Your task to perform on an android device: open sync settings in chrome Image 0: 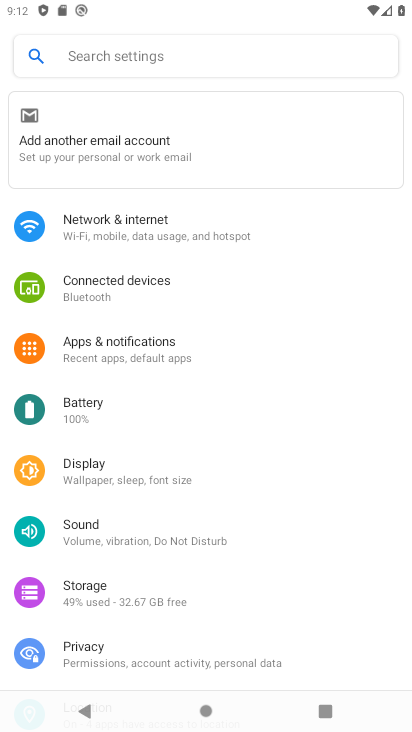
Step 0: press home button
Your task to perform on an android device: open sync settings in chrome Image 1: 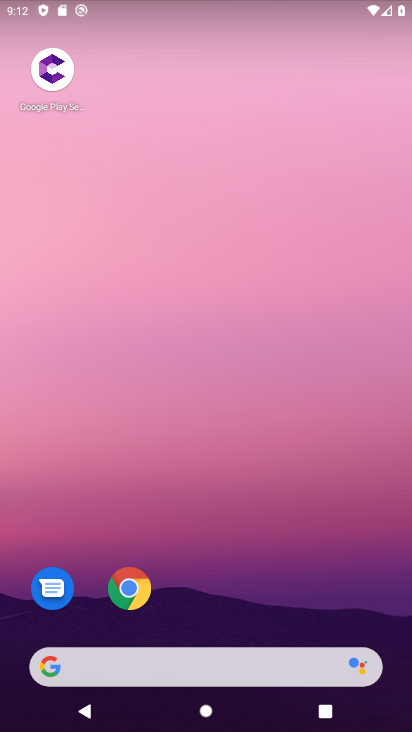
Step 1: drag from (214, 631) to (153, 72)
Your task to perform on an android device: open sync settings in chrome Image 2: 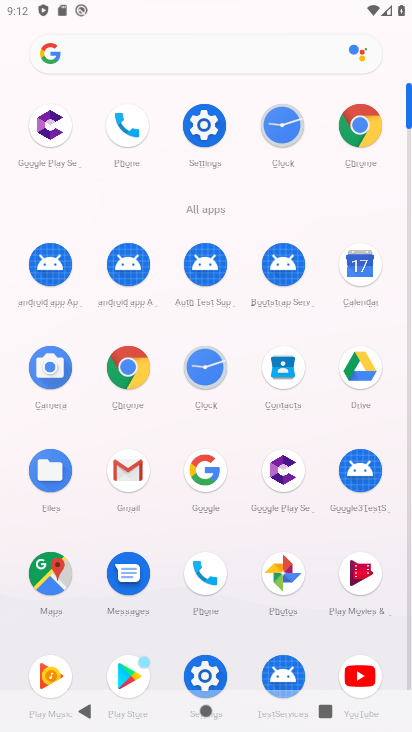
Step 2: click (125, 381)
Your task to perform on an android device: open sync settings in chrome Image 3: 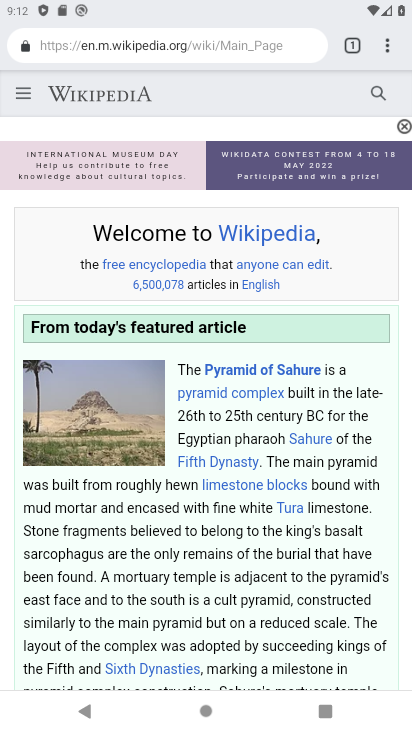
Step 3: click (386, 41)
Your task to perform on an android device: open sync settings in chrome Image 4: 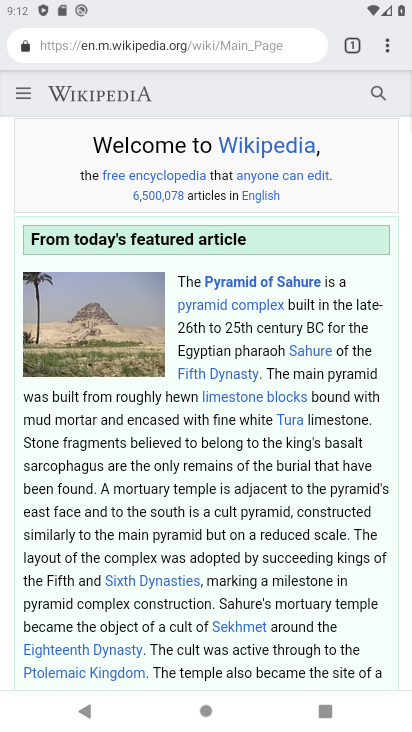
Step 4: drag from (379, 42) to (215, 498)
Your task to perform on an android device: open sync settings in chrome Image 5: 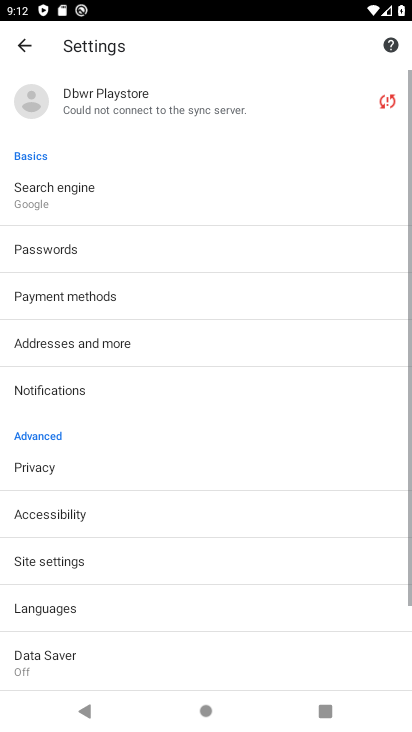
Step 5: drag from (239, 529) to (196, 68)
Your task to perform on an android device: open sync settings in chrome Image 6: 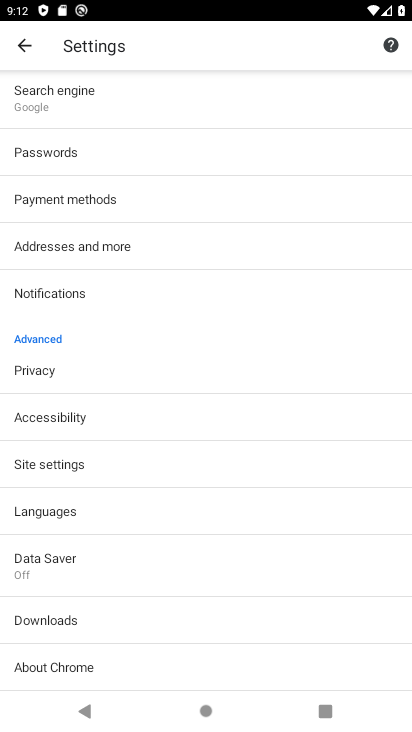
Step 6: drag from (180, 127) to (184, 625)
Your task to perform on an android device: open sync settings in chrome Image 7: 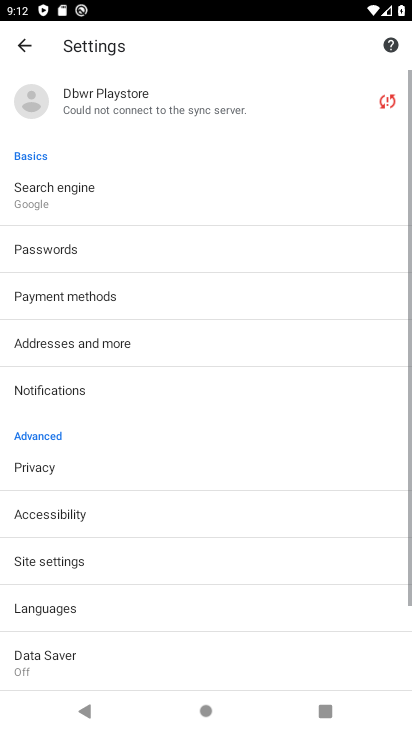
Step 7: click (96, 112)
Your task to perform on an android device: open sync settings in chrome Image 8: 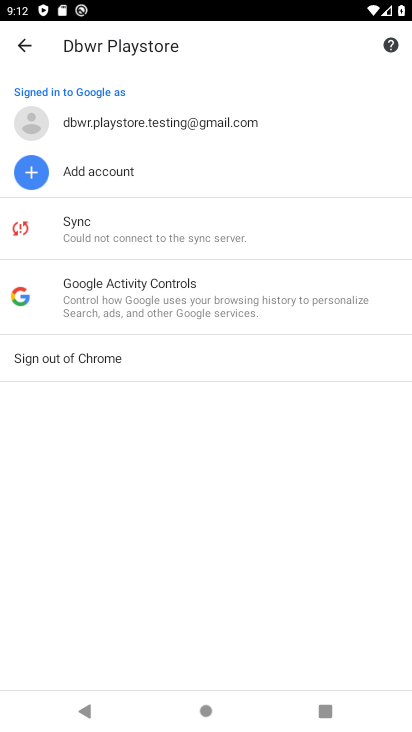
Step 8: click (85, 248)
Your task to perform on an android device: open sync settings in chrome Image 9: 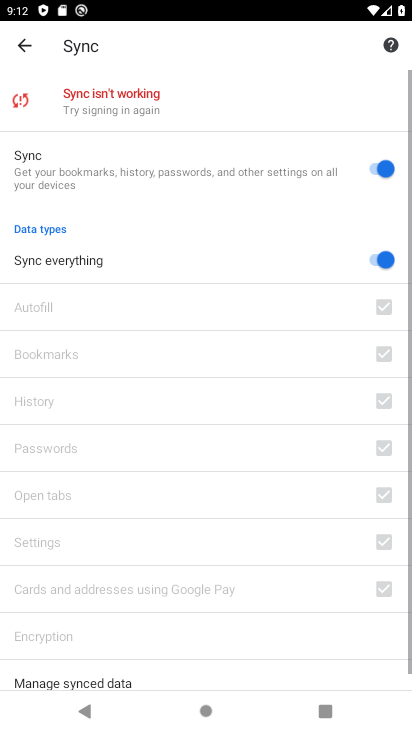
Step 9: task complete